Your task to perform on an android device: Open the map Image 0: 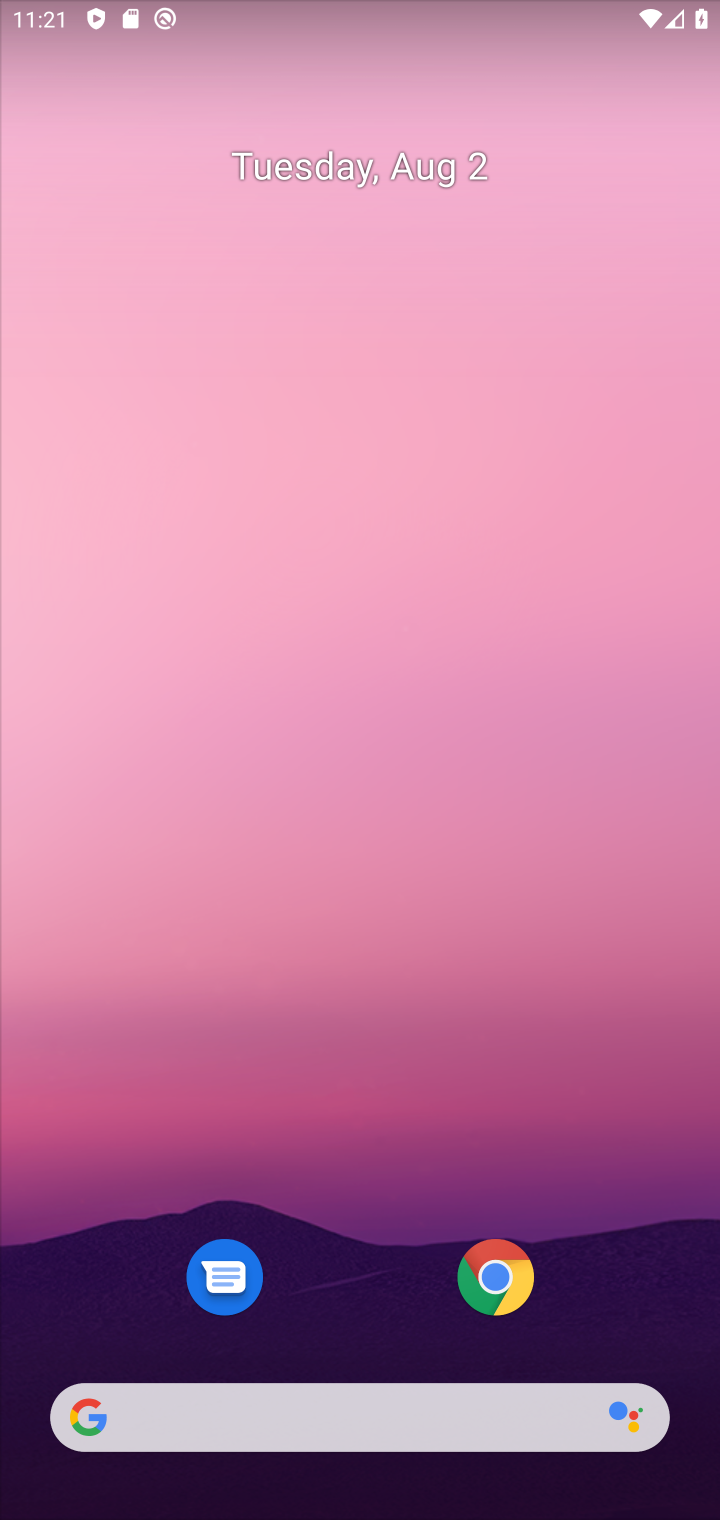
Step 0: press back button
Your task to perform on an android device: Open the map Image 1: 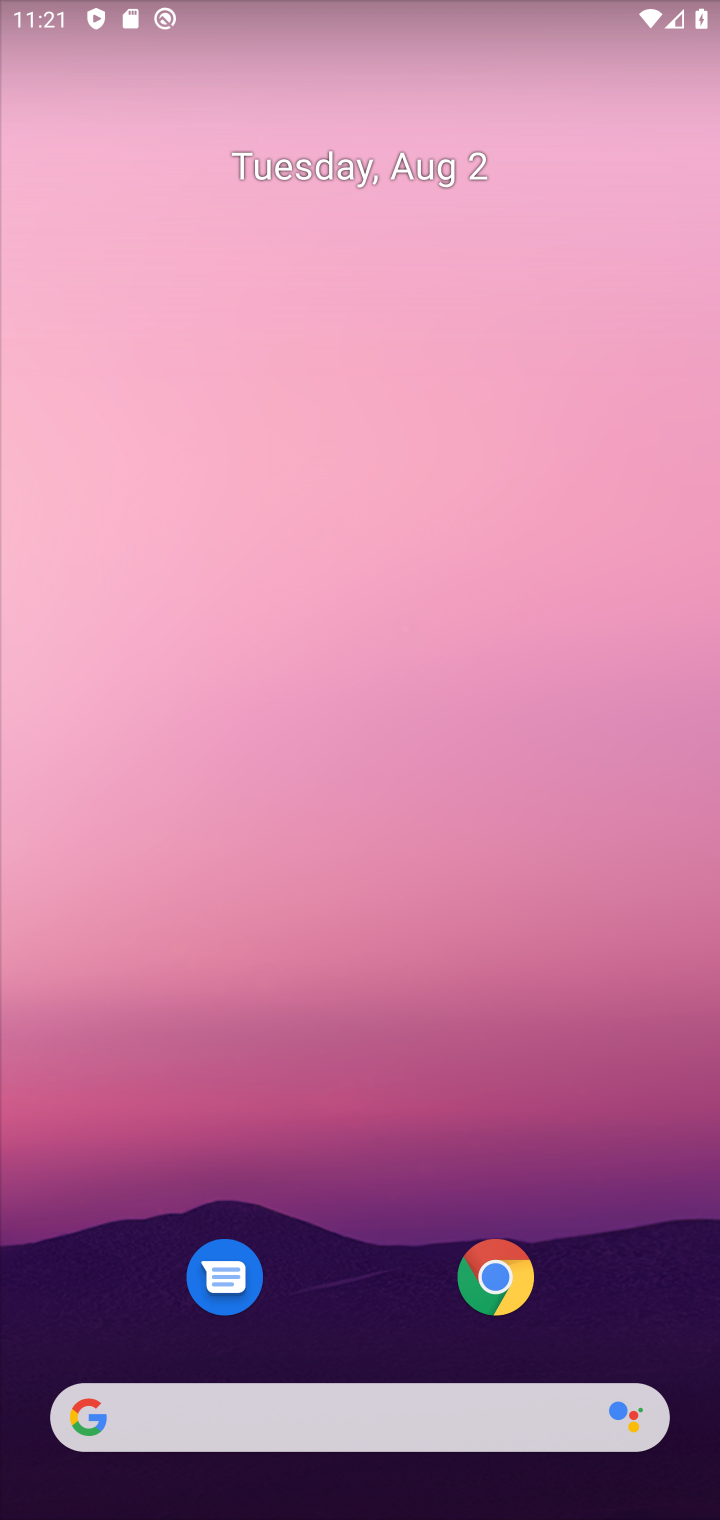
Step 1: drag from (633, 1283) to (419, 240)
Your task to perform on an android device: Open the map Image 2: 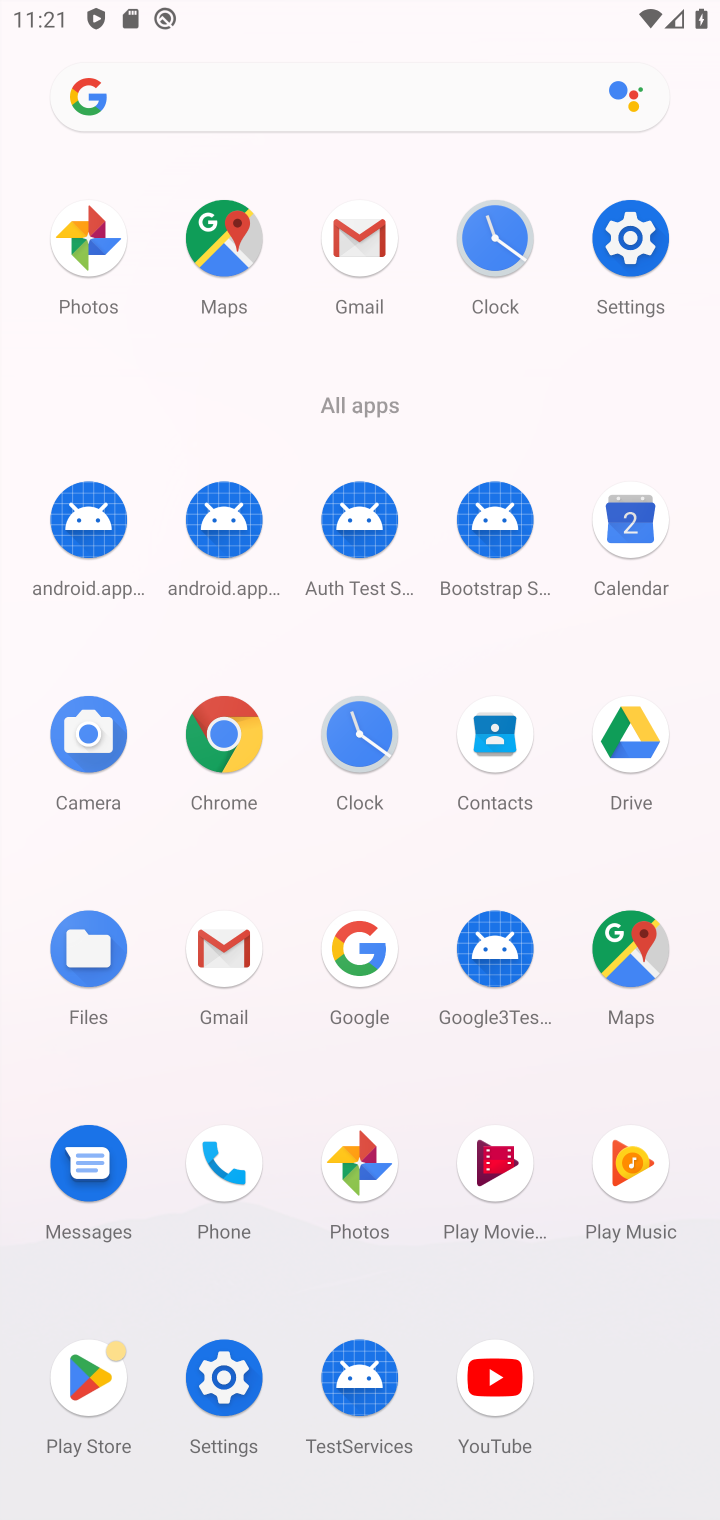
Step 2: click (224, 241)
Your task to perform on an android device: Open the map Image 3: 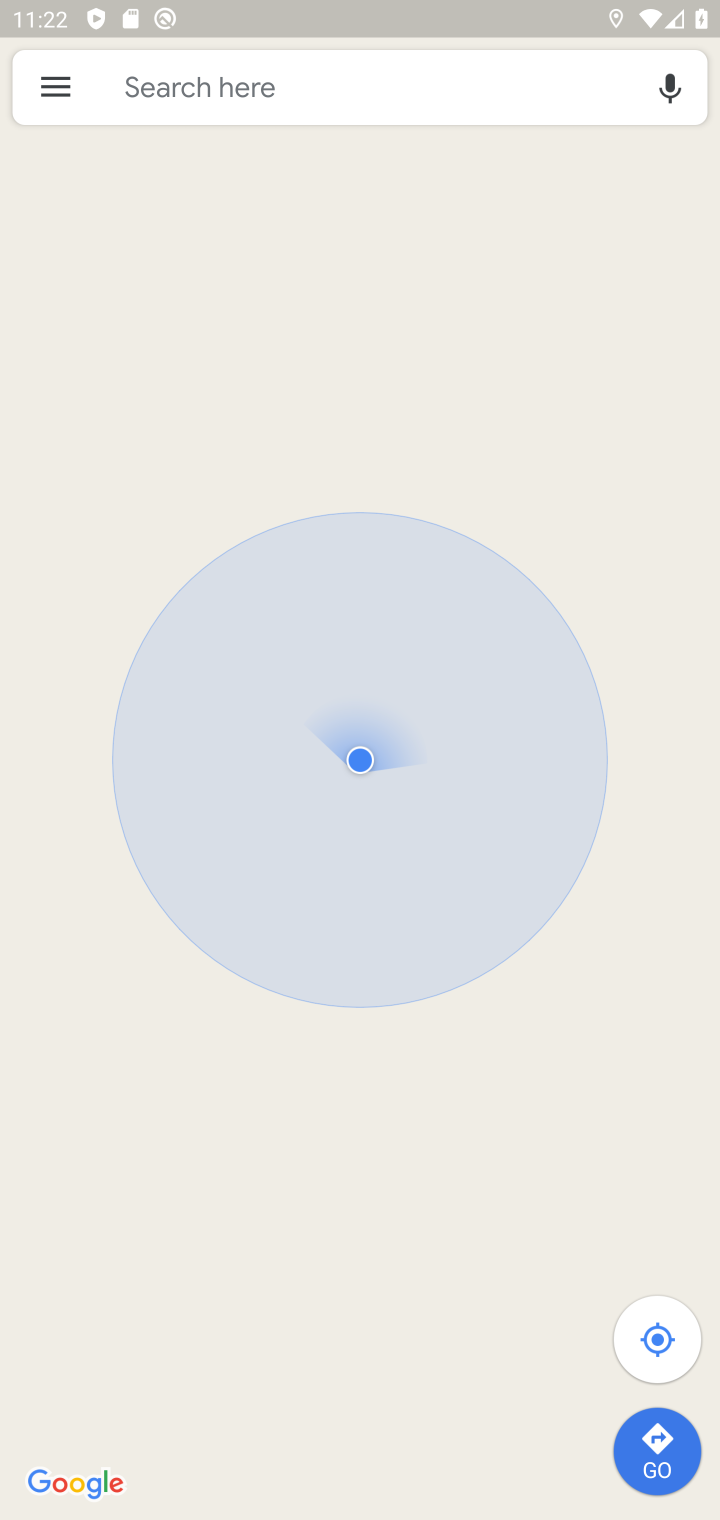
Step 3: task complete